Your task to perform on an android device: open chrome privacy settings Image 0: 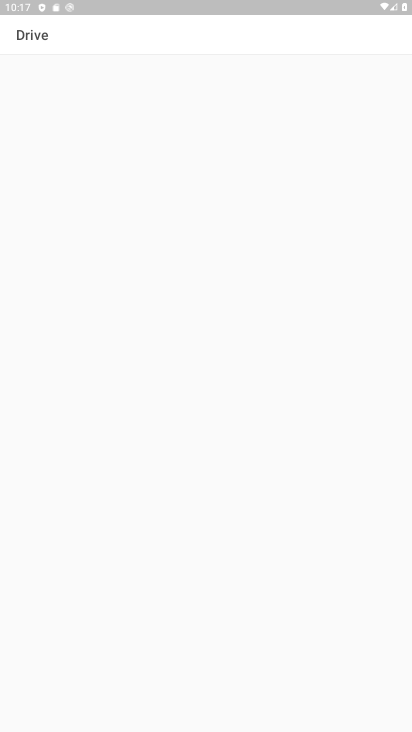
Step 0: press home button
Your task to perform on an android device: open chrome privacy settings Image 1: 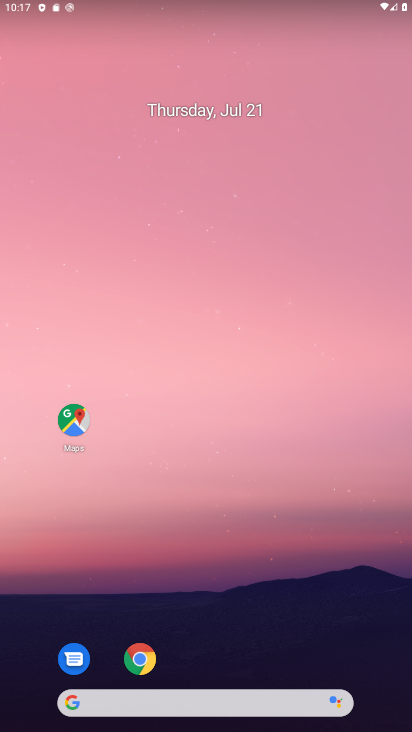
Step 1: click (144, 663)
Your task to perform on an android device: open chrome privacy settings Image 2: 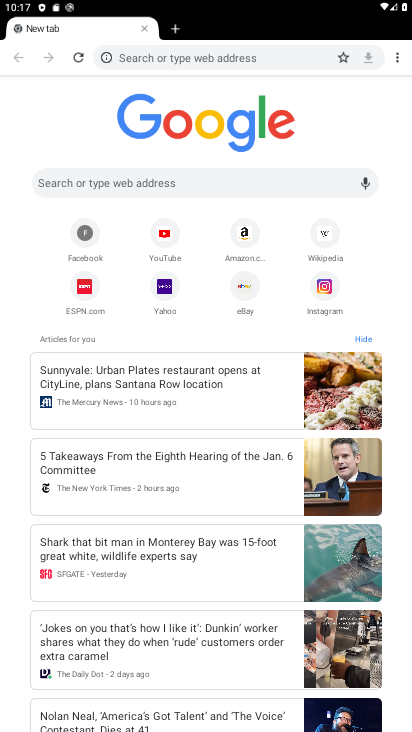
Step 2: click (392, 57)
Your task to perform on an android device: open chrome privacy settings Image 3: 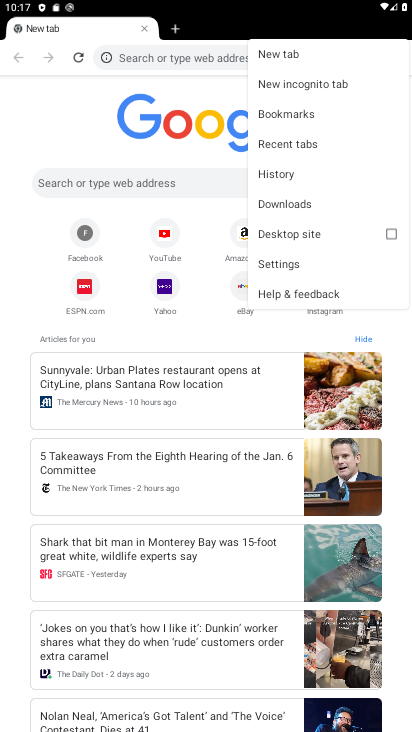
Step 3: click (265, 254)
Your task to perform on an android device: open chrome privacy settings Image 4: 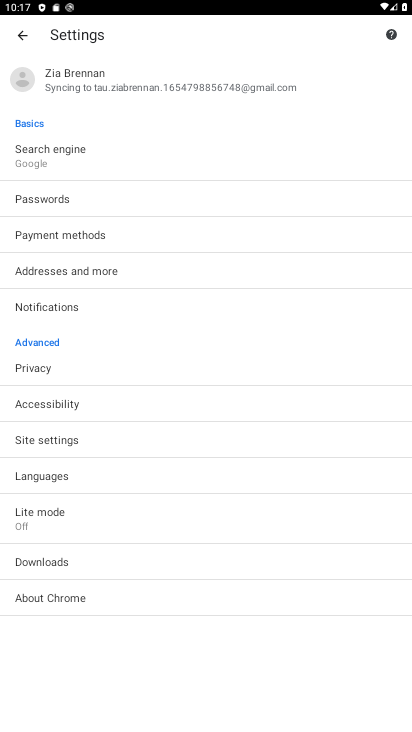
Step 4: click (27, 360)
Your task to perform on an android device: open chrome privacy settings Image 5: 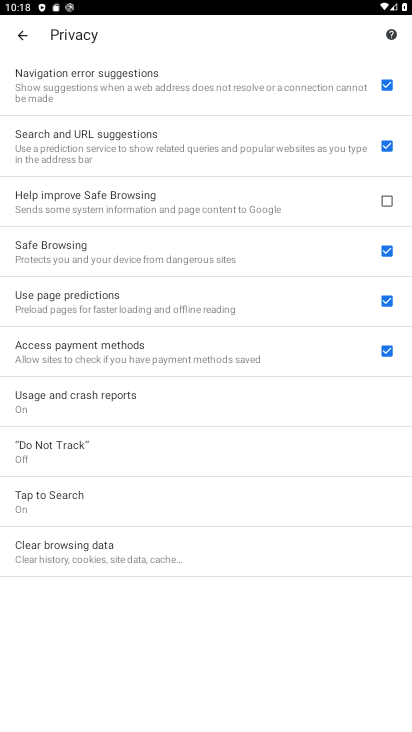
Step 5: task complete